Your task to perform on an android device: add a label to a message in the gmail app Image 0: 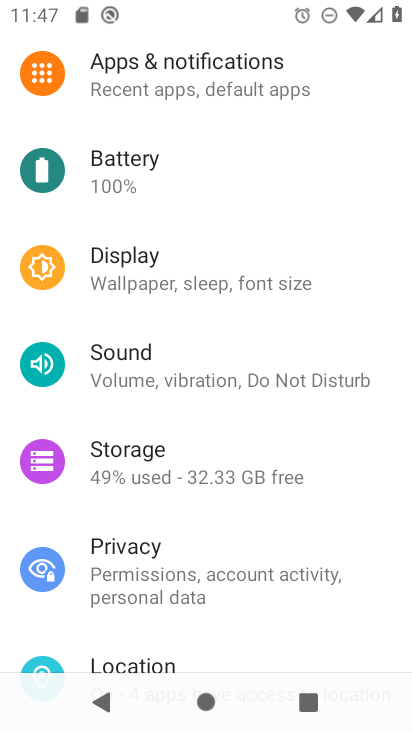
Step 0: press home button
Your task to perform on an android device: add a label to a message in the gmail app Image 1: 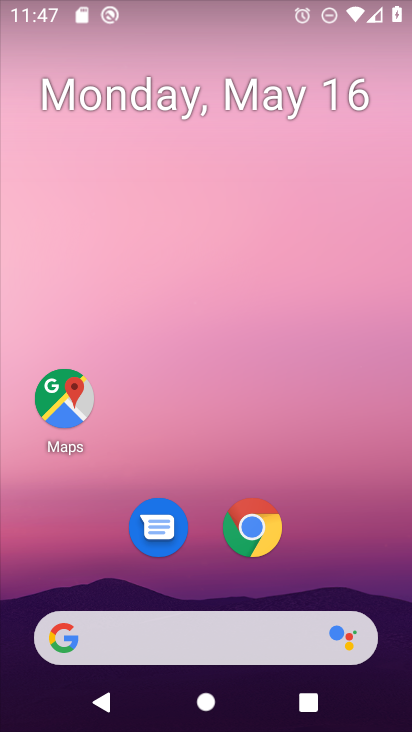
Step 1: drag from (361, 578) to (322, 13)
Your task to perform on an android device: add a label to a message in the gmail app Image 2: 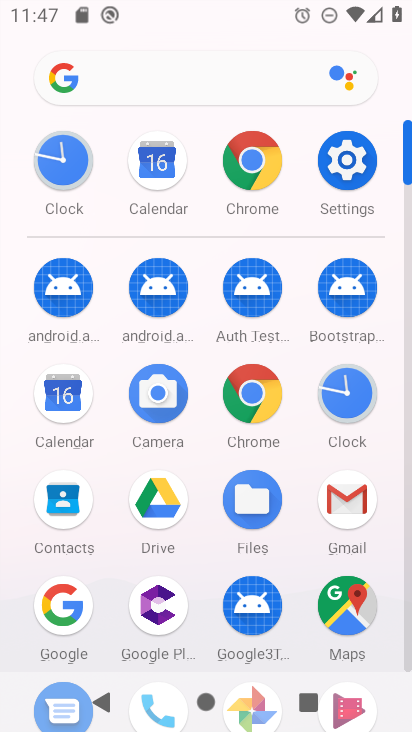
Step 2: click (344, 482)
Your task to perform on an android device: add a label to a message in the gmail app Image 3: 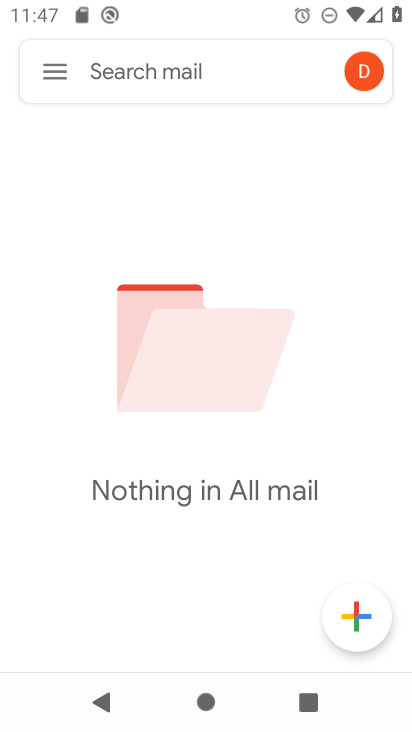
Step 3: task complete